Your task to perform on an android device: check android version Image 0: 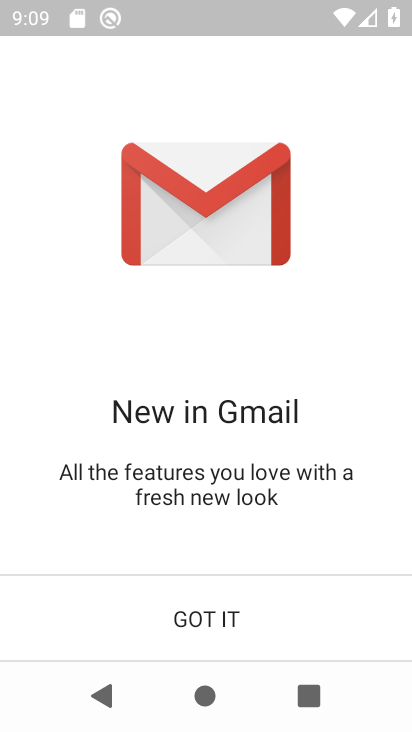
Step 0: press home button
Your task to perform on an android device: check android version Image 1: 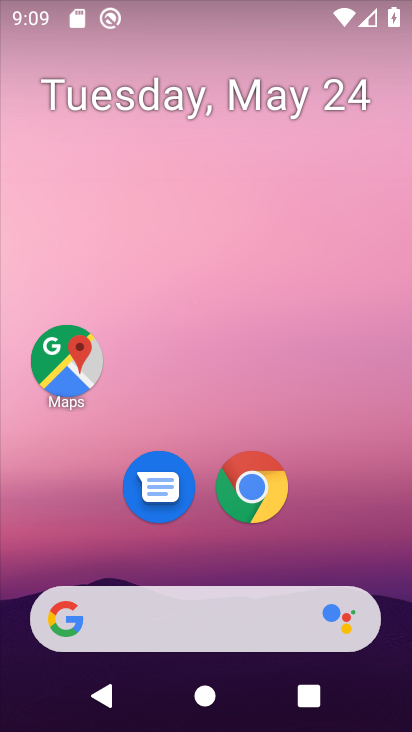
Step 1: drag from (166, 625) to (330, 159)
Your task to perform on an android device: check android version Image 2: 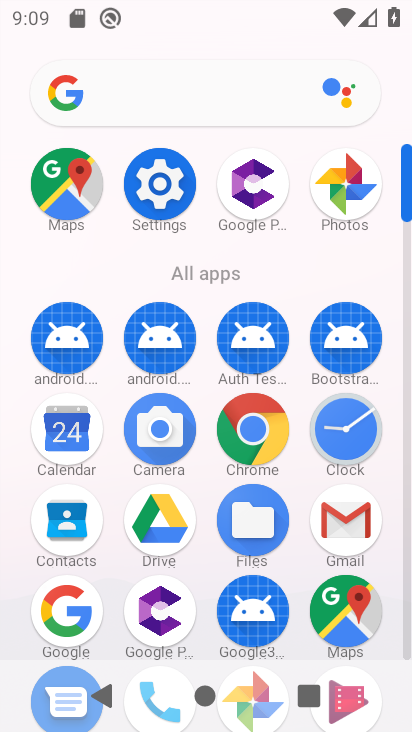
Step 2: click (155, 189)
Your task to perform on an android device: check android version Image 3: 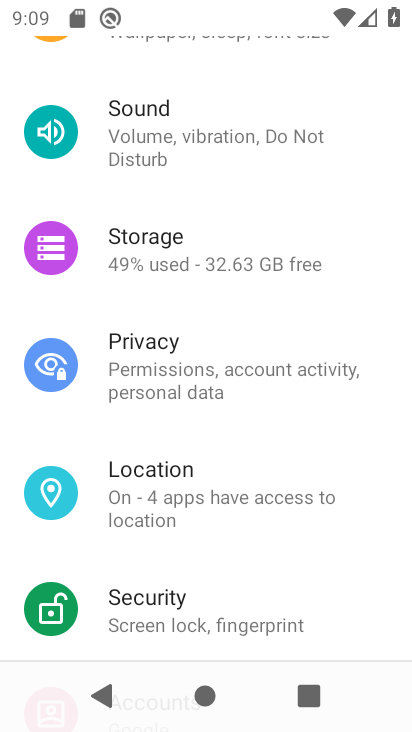
Step 3: drag from (207, 599) to (290, 109)
Your task to perform on an android device: check android version Image 4: 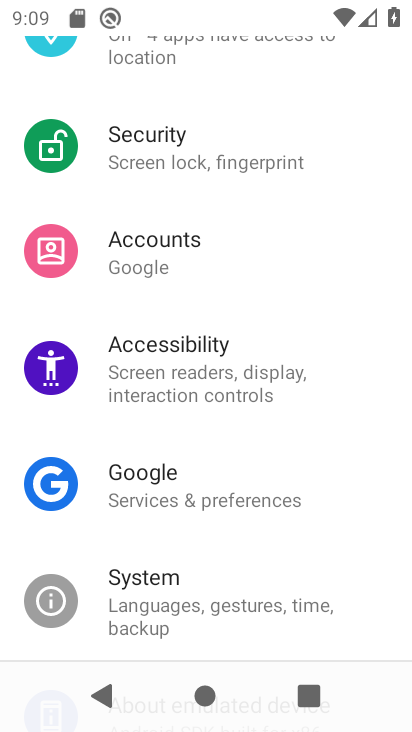
Step 4: drag from (235, 611) to (327, 99)
Your task to perform on an android device: check android version Image 5: 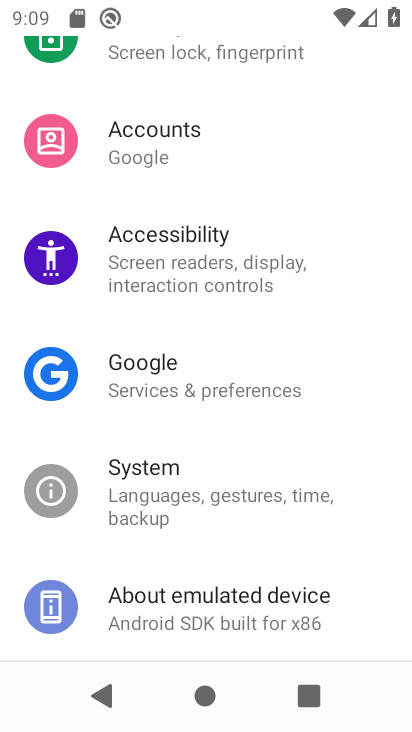
Step 5: click (196, 603)
Your task to perform on an android device: check android version Image 6: 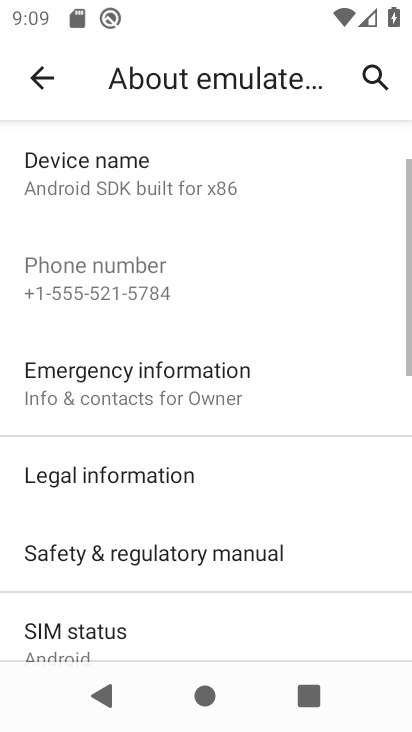
Step 6: drag from (192, 614) to (285, 75)
Your task to perform on an android device: check android version Image 7: 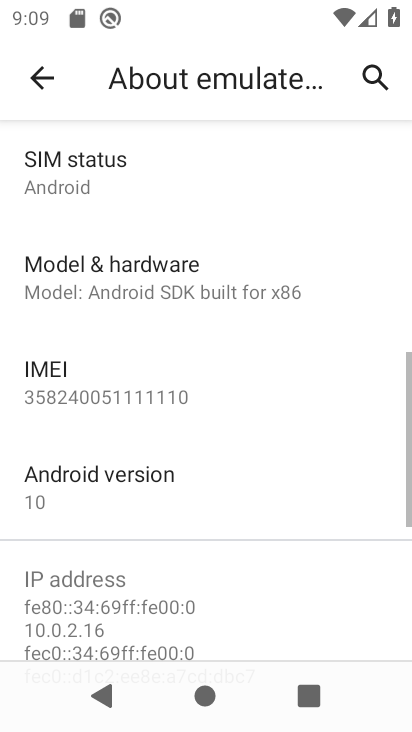
Step 7: click (111, 473)
Your task to perform on an android device: check android version Image 8: 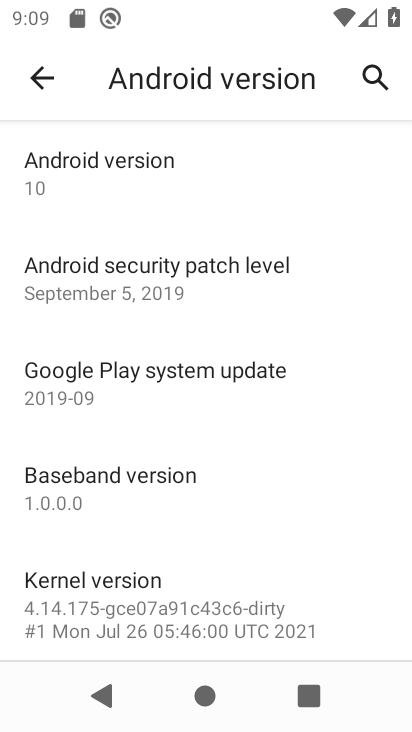
Step 8: task complete